Your task to perform on an android device: check storage Image 0: 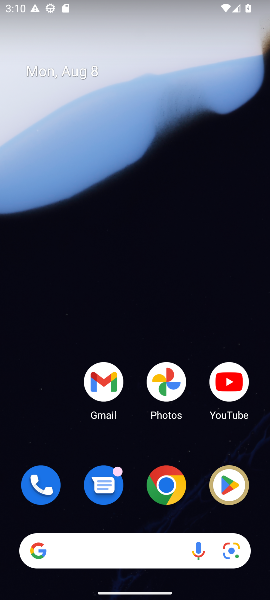
Step 0: drag from (155, 315) to (177, 18)
Your task to perform on an android device: check storage Image 1: 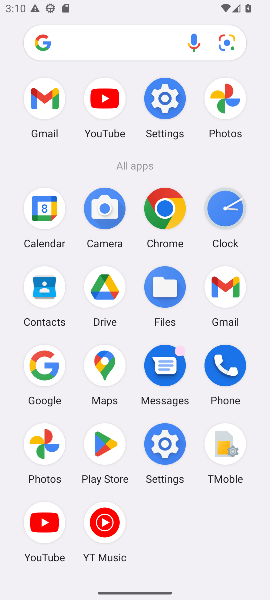
Step 1: click (168, 105)
Your task to perform on an android device: check storage Image 2: 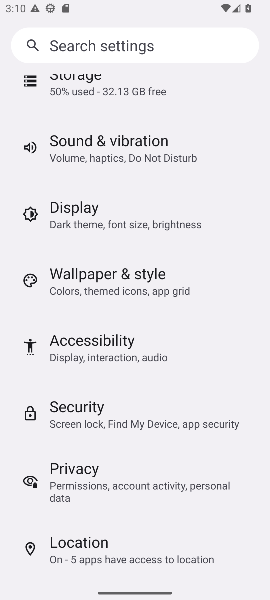
Step 2: drag from (198, 226) to (200, 382)
Your task to perform on an android device: check storage Image 3: 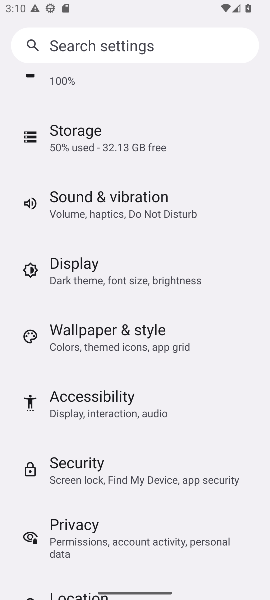
Step 3: click (146, 134)
Your task to perform on an android device: check storage Image 4: 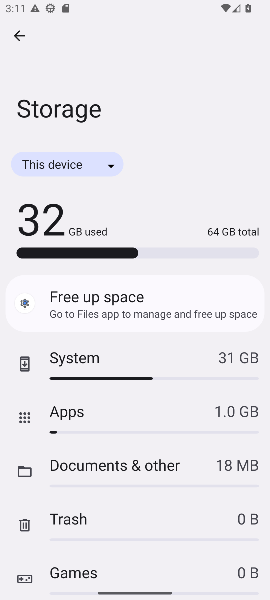
Step 4: task complete